Your task to perform on an android device: toggle wifi Image 0: 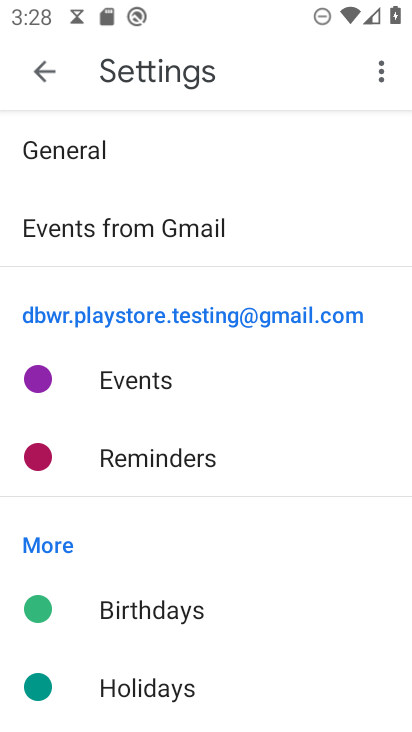
Step 0: press home button
Your task to perform on an android device: toggle wifi Image 1: 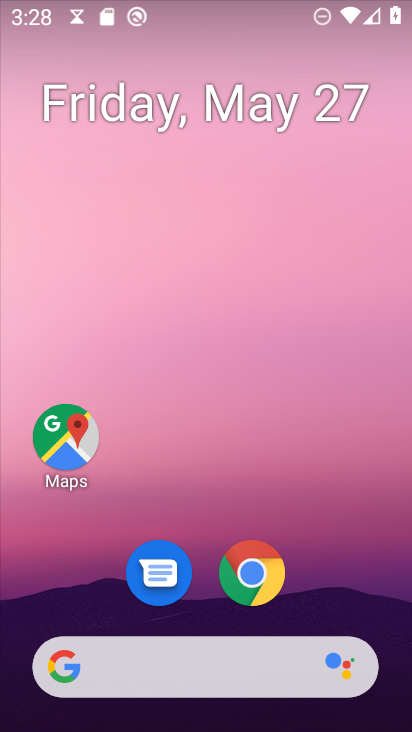
Step 1: drag from (345, 599) to (250, 53)
Your task to perform on an android device: toggle wifi Image 2: 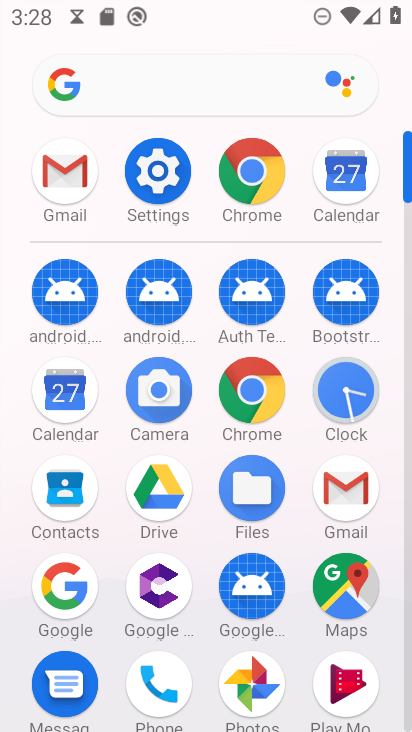
Step 2: click (172, 172)
Your task to perform on an android device: toggle wifi Image 3: 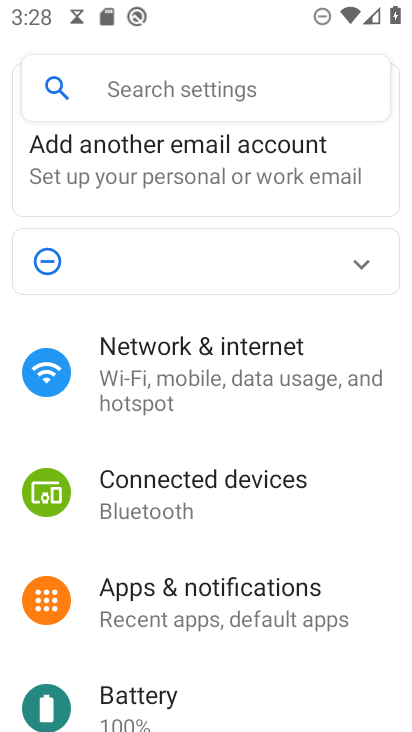
Step 3: click (185, 376)
Your task to perform on an android device: toggle wifi Image 4: 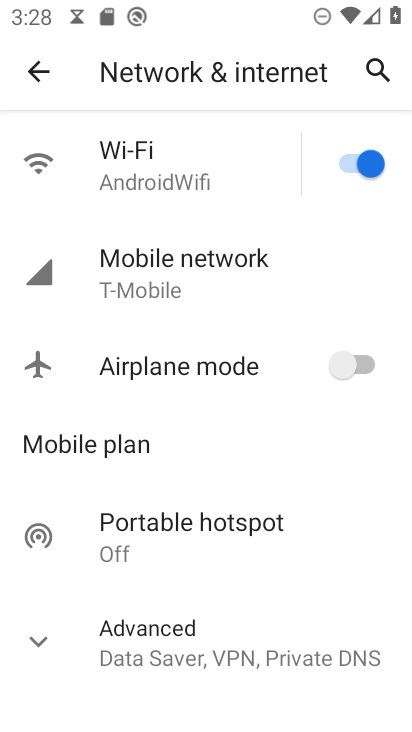
Step 4: click (128, 171)
Your task to perform on an android device: toggle wifi Image 5: 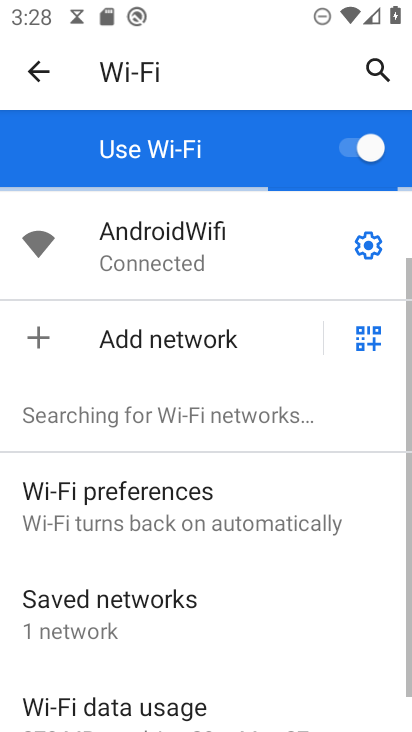
Step 5: click (364, 144)
Your task to perform on an android device: toggle wifi Image 6: 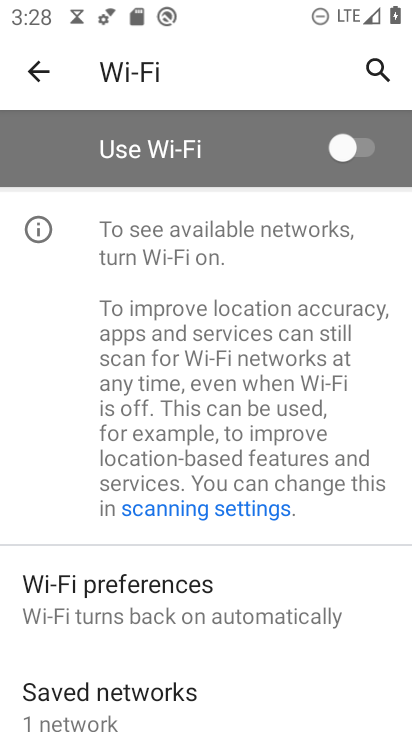
Step 6: task complete